Your task to perform on an android device: check data usage Image 0: 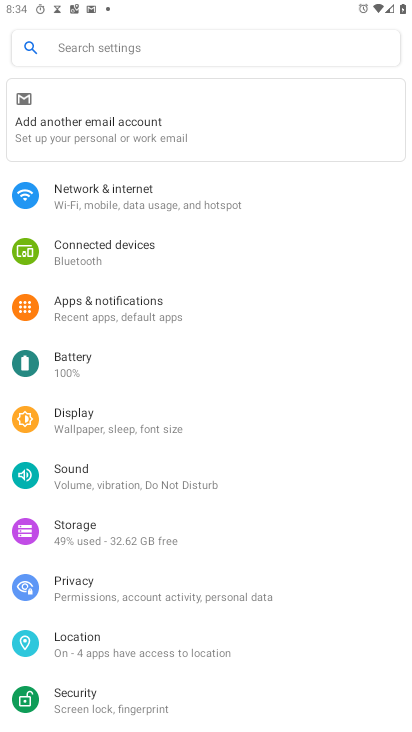
Step 0: click (109, 207)
Your task to perform on an android device: check data usage Image 1: 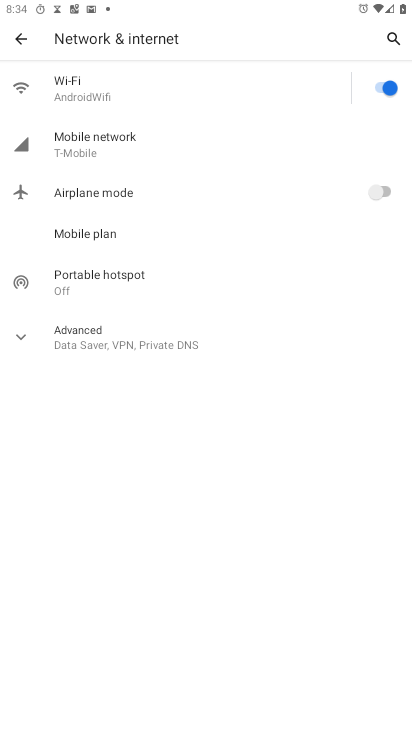
Step 1: click (96, 85)
Your task to perform on an android device: check data usage Image 2: 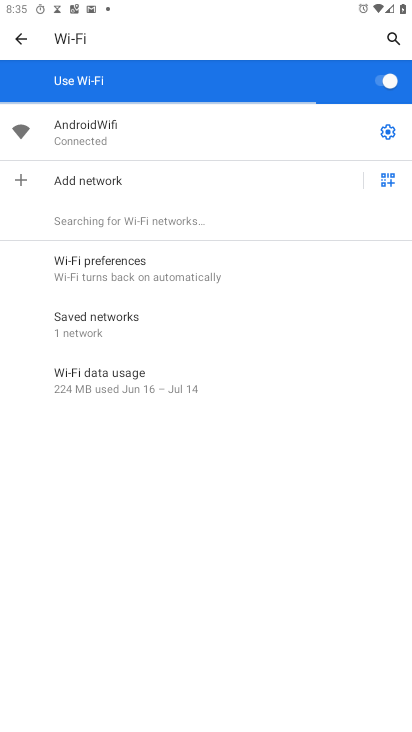
Step 2: click (119, 366)
Your task to perform on an android device: check data usage Image 3: 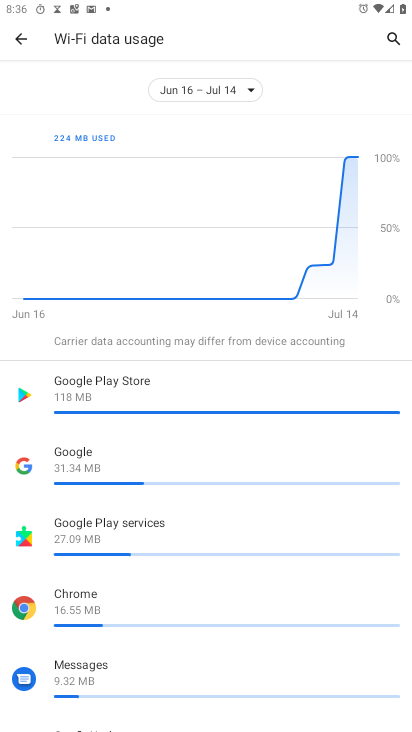
Step 3: task complete